Your task to perform on an android device: Open sound settings Image 0: 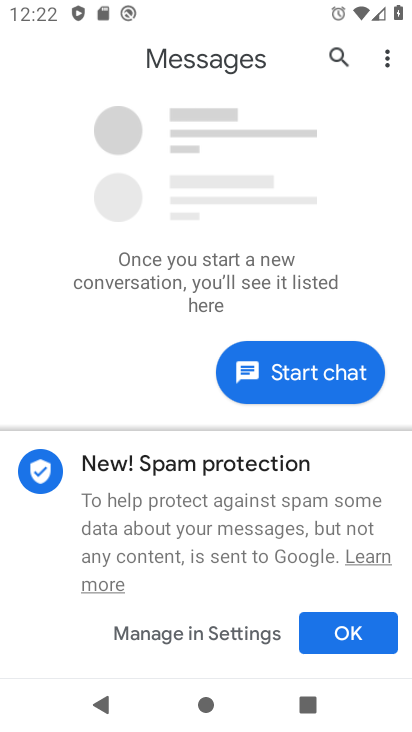
Step 0: press home button
Your task to perform on an android device: Open sound settings Image 1: 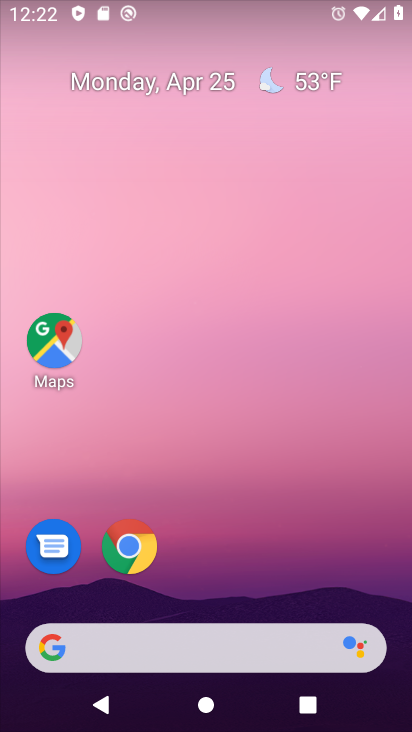
Step 1: drag from (212, 542) to (214, 137)
Your task to perform on an android device: Open sound settings Image 2: 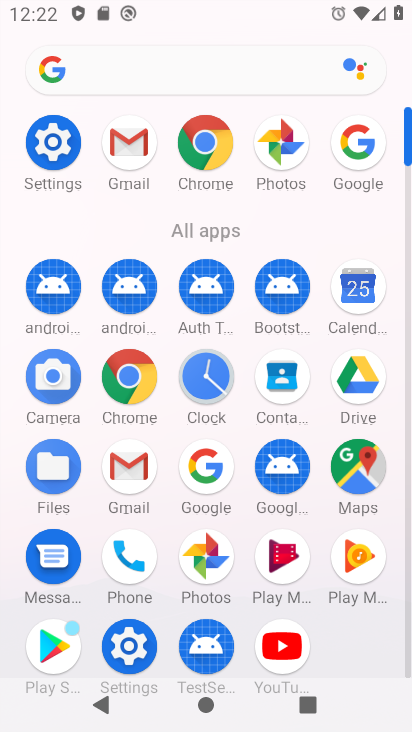
Step 2: click (47, 143)
Your task to perform on an android device: Open sound settings Image 3: 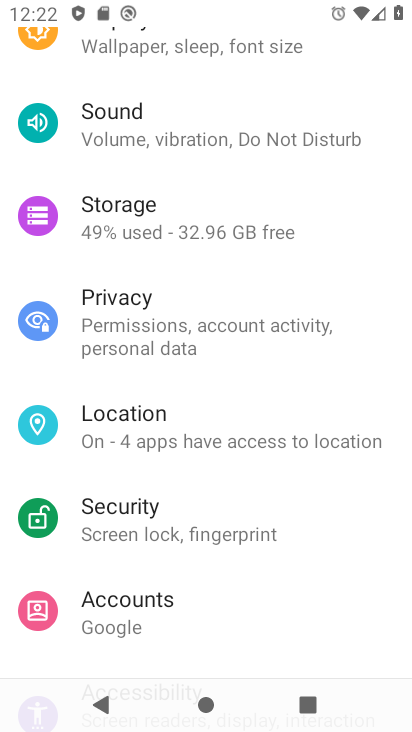
Step 3: click (150, 134)
Your task to perform on an android device: Open sound settings Image 4: 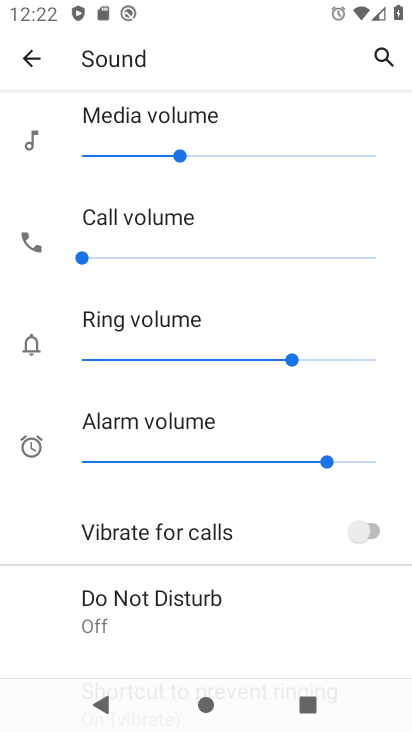
Step 4: task complete